Your task to perform on an android device: Show me popular games on the Play Store Image 0: 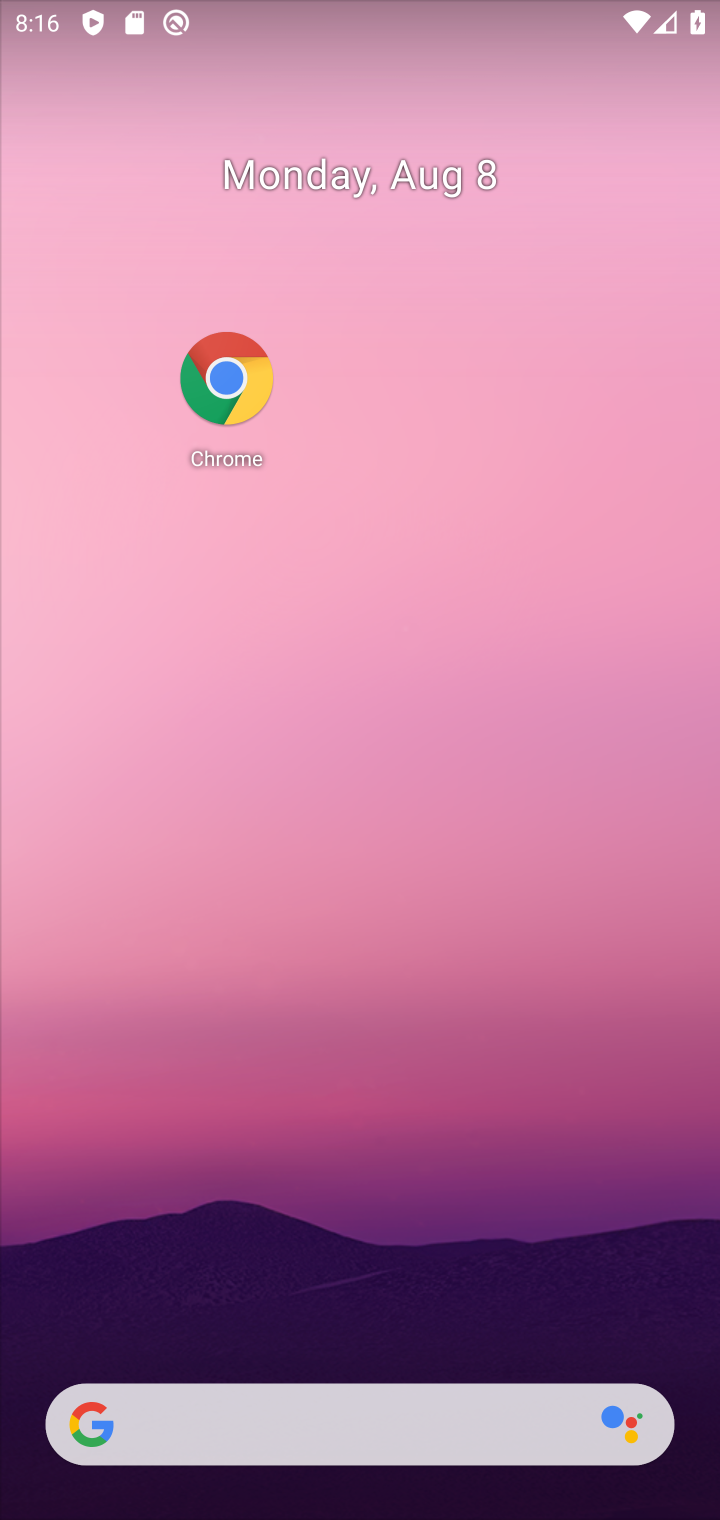
Step 0: drag from (140, 1300) to (140, 767)
Your task to perform on an android device: Show me popular games on the Play Store Image 1: 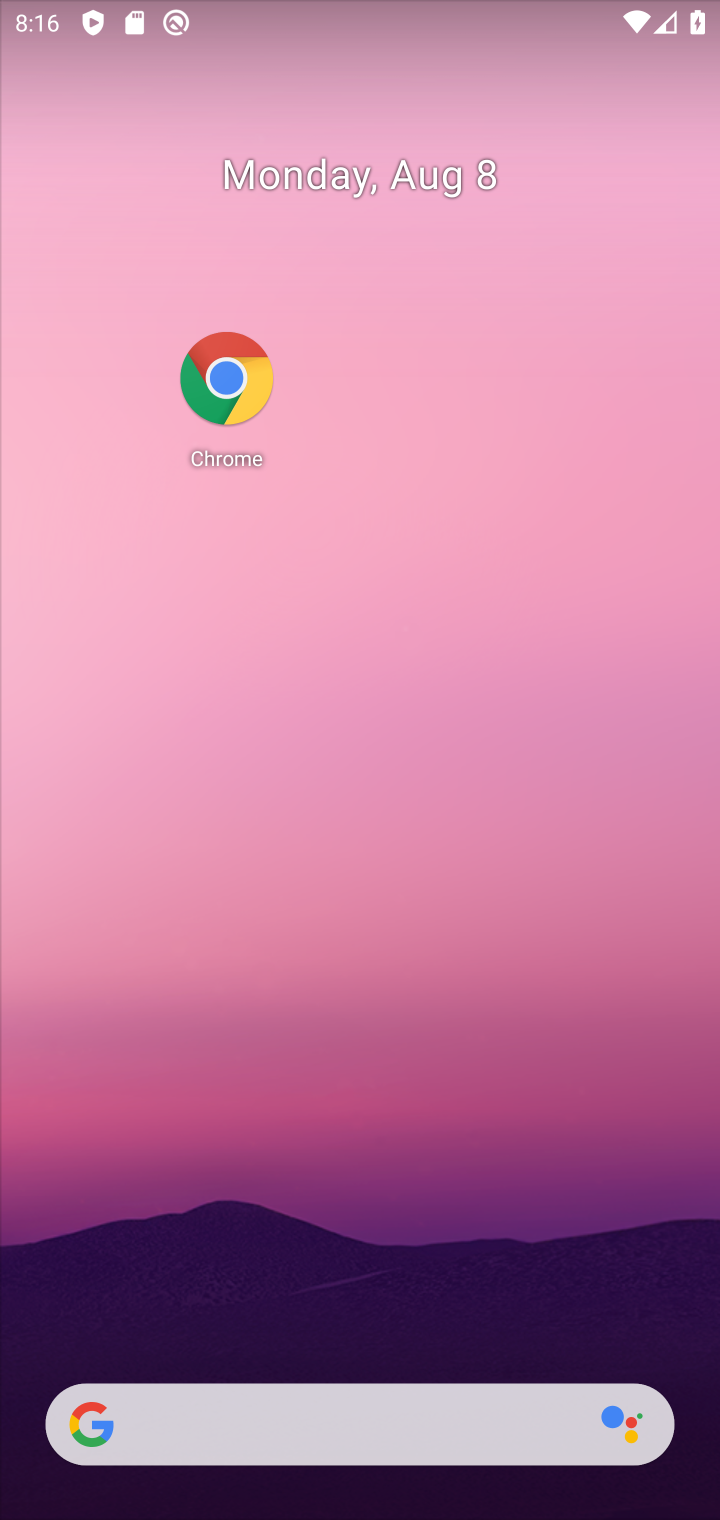
Step 1: drag from (212, 1364) to (302, 555)
Your task to perform on an android device: Show me popular games on the Play Store Image 2: 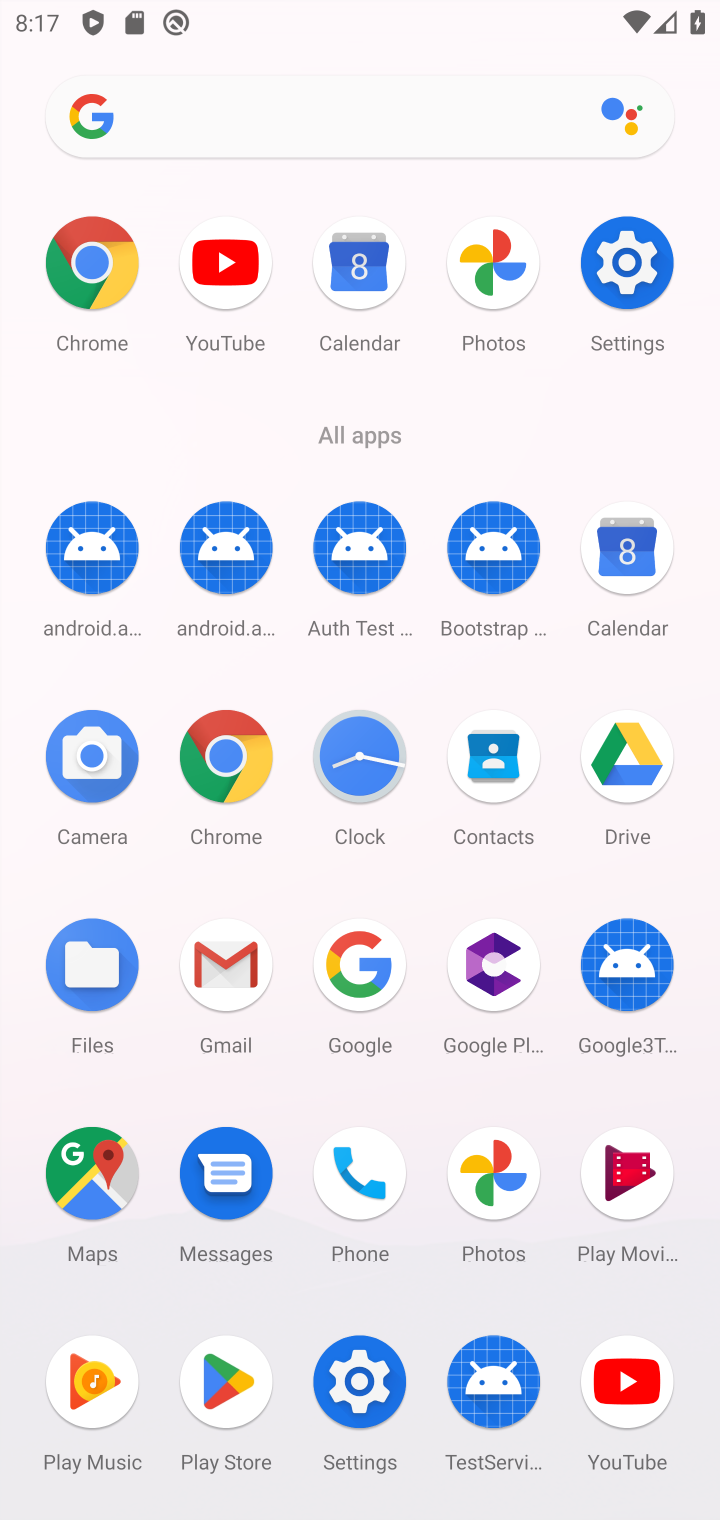
Step 2: click (224, 1374)
Your task to perform on an android device: Show me popular games on the Play Store Image 3: 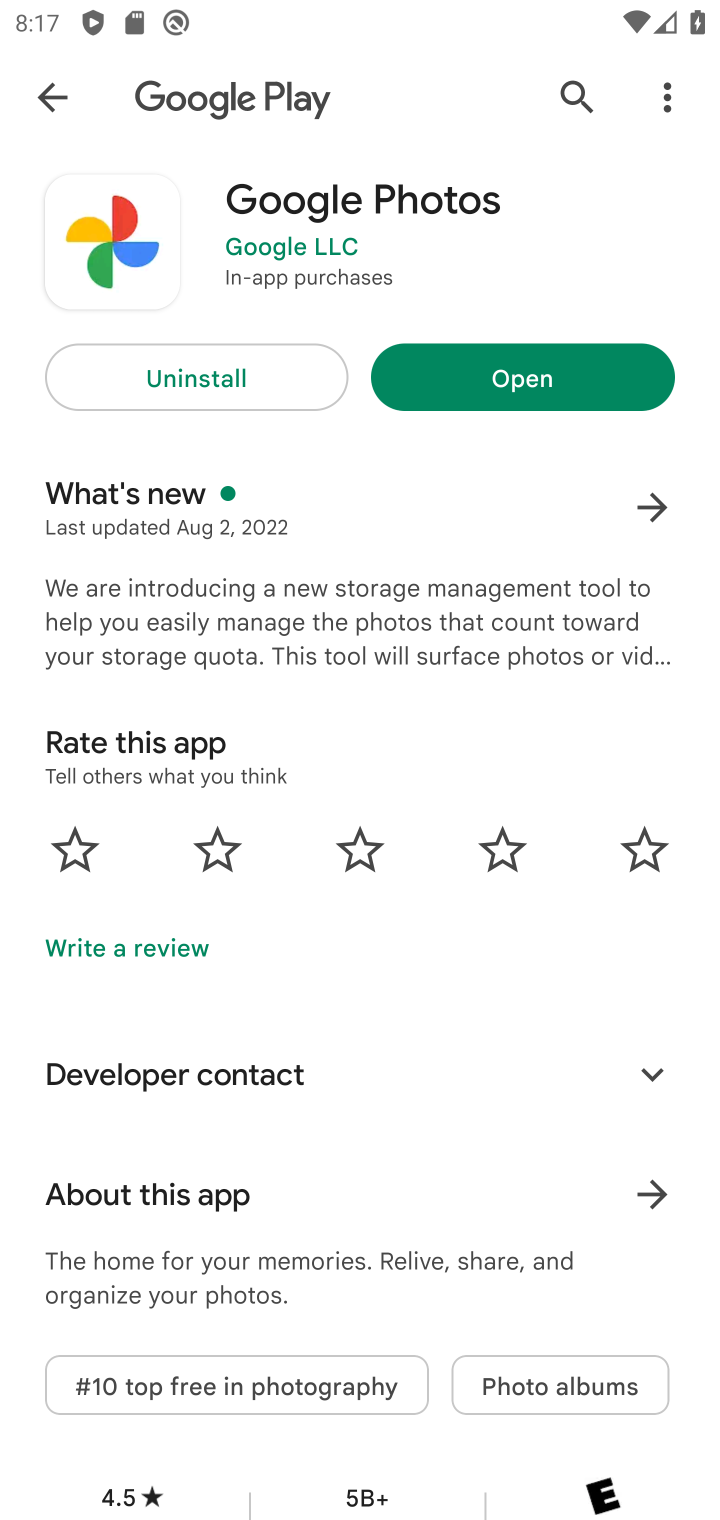
Step 3: click (41, 102)
Your task to perform on an android device: Show me popular games on the Play Store Image 4: 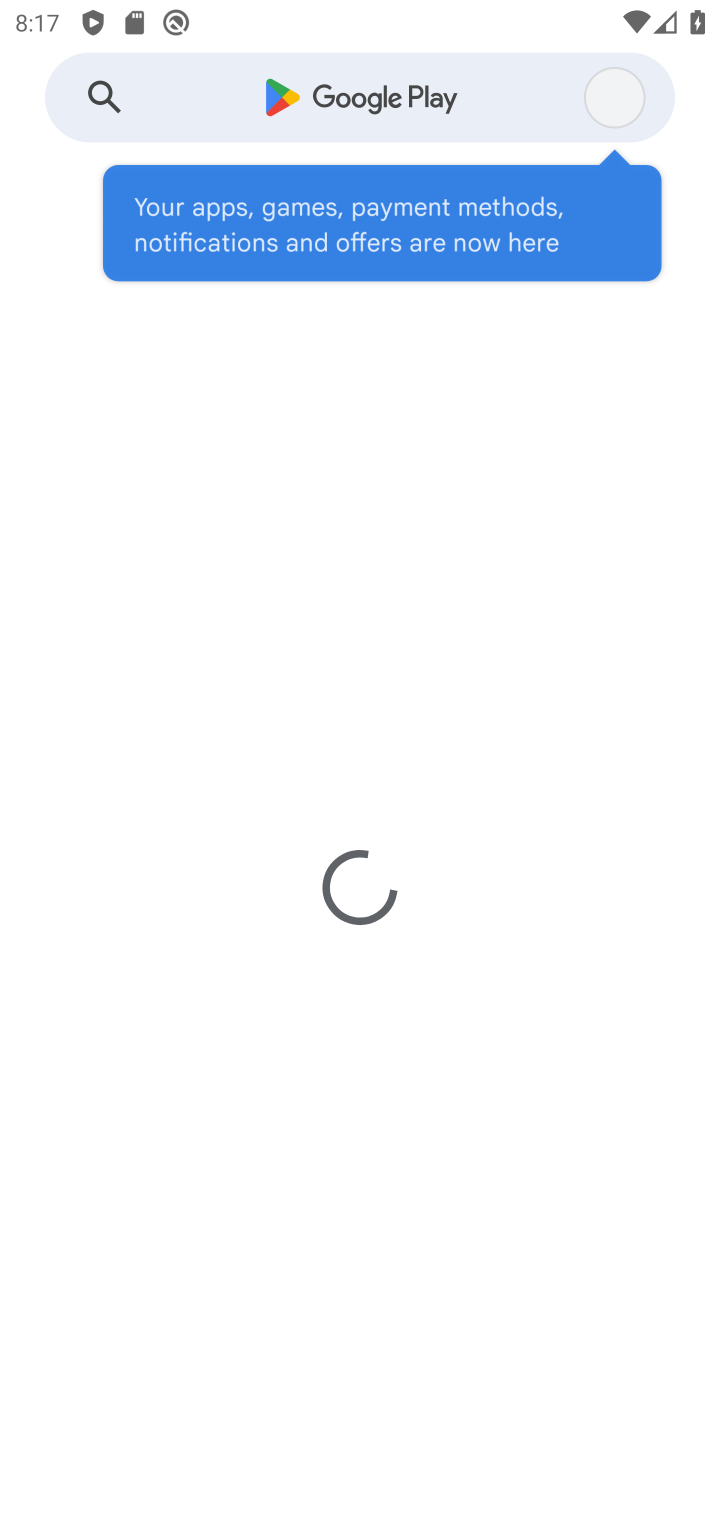
Step 4: click (182, 110)
Your task to perform on an android device: Show me popular games on the Play Store Image 5: 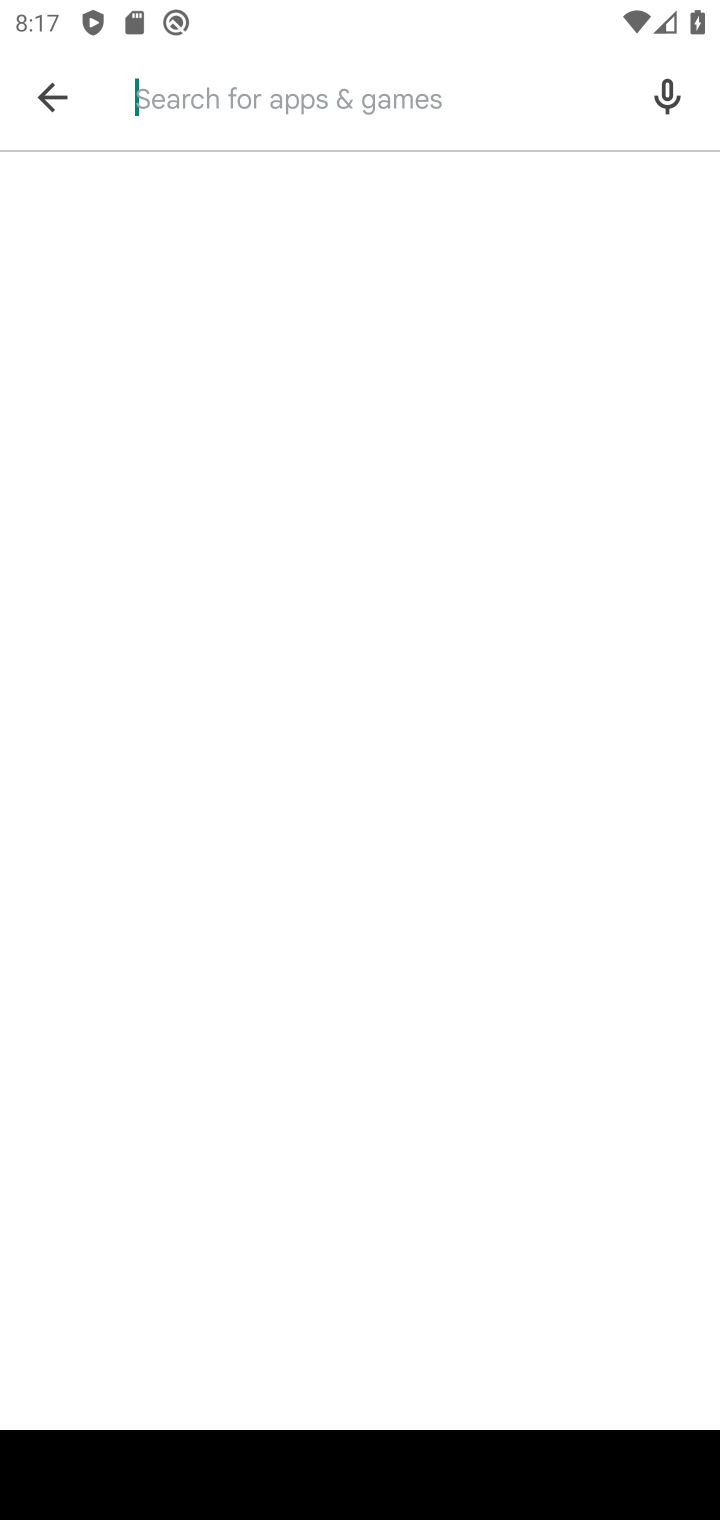
Step 5: type "popular games "
Your task to perform on an android device: Show me popular games on the Play Store Image 6: 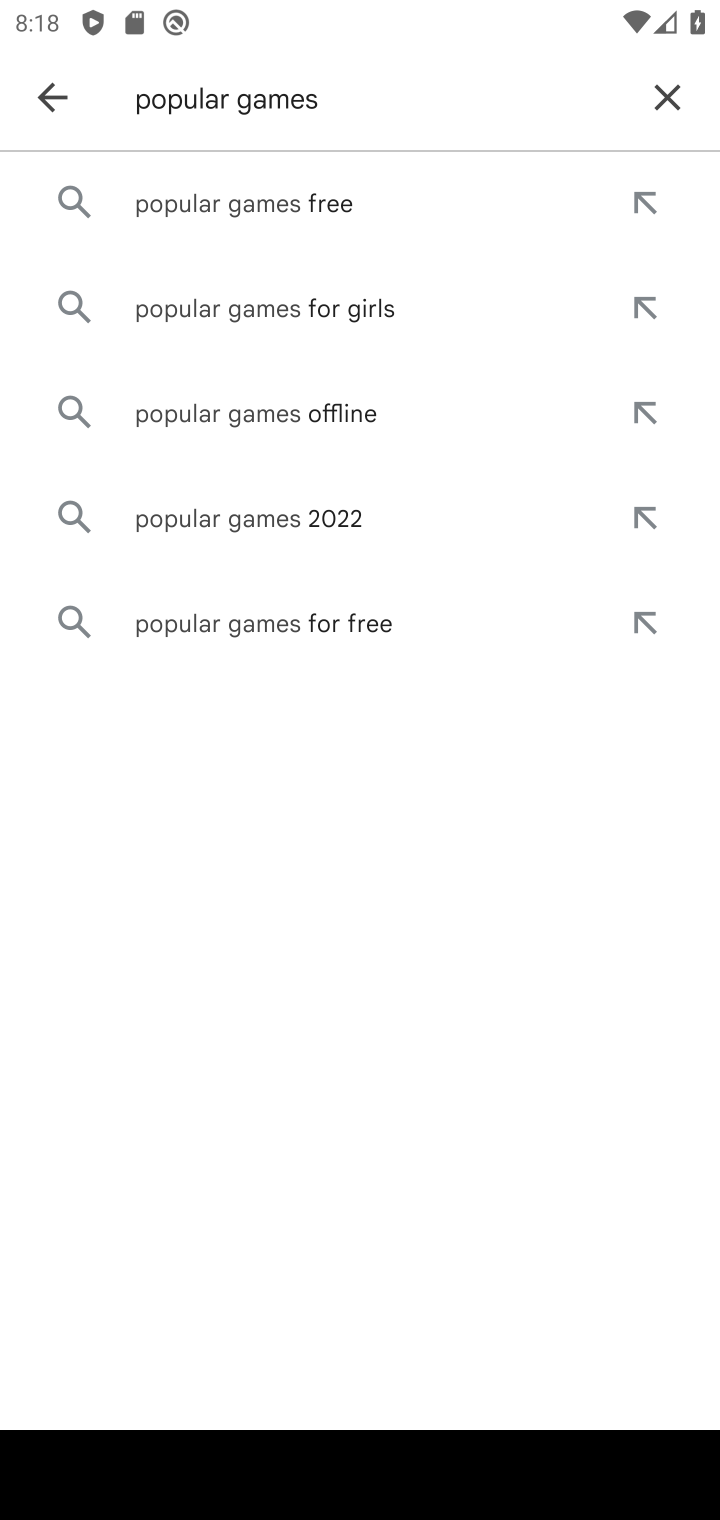
Step 6: press enter
Your task to perform on an android device: Show me popular games on the Play Store Image 7: 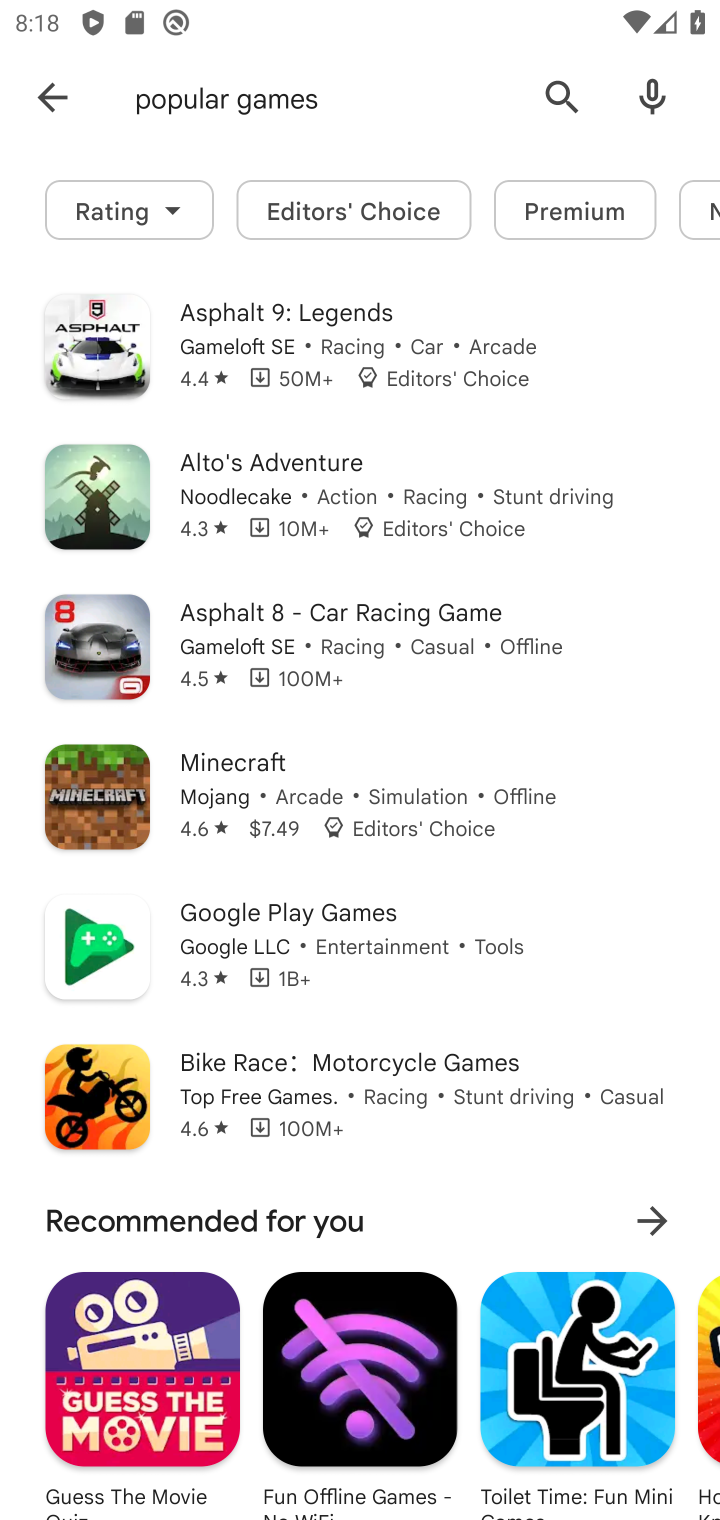
Step 7: task complete